Your task to perform on an android device: open a bookmark in the chrome app Image 0: 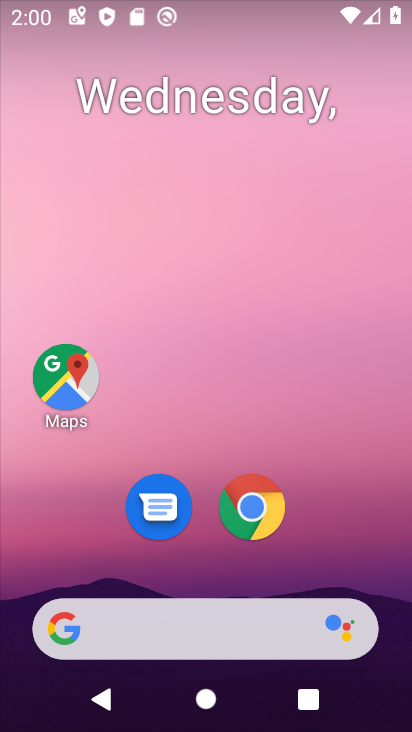
Step 0: drag from (357, 554) to (308, 184)
Your task to perform on an android device: open a bookmark in the chrome app Image 1: 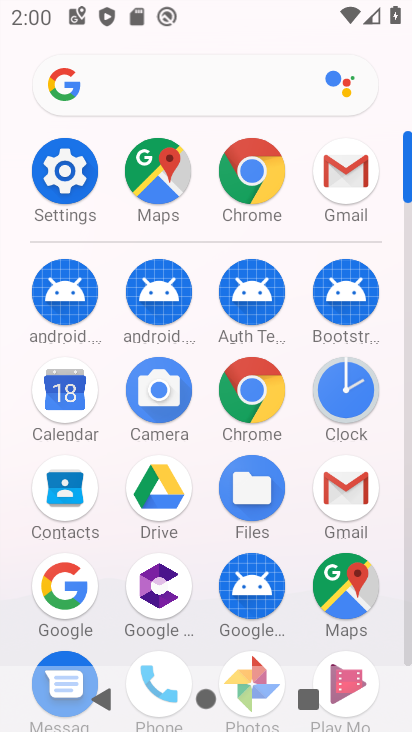
Step 1: click (236, 191)
Your task to perform on an android device: open a bookmark in the chrome app Image 2: 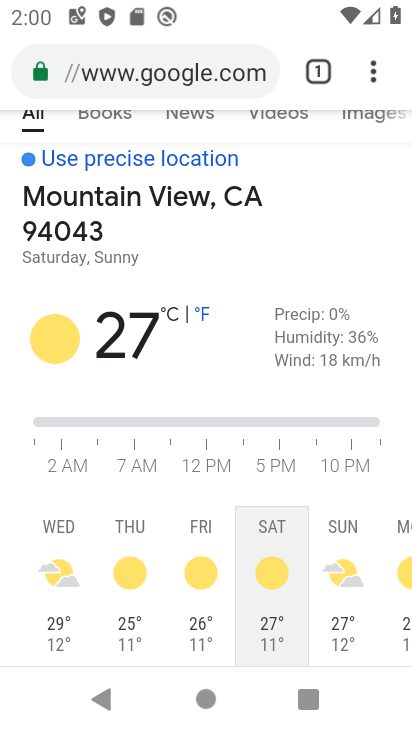
Step 2: task complete